Your task to perform on an android device: Open Google Chrome Image 0: 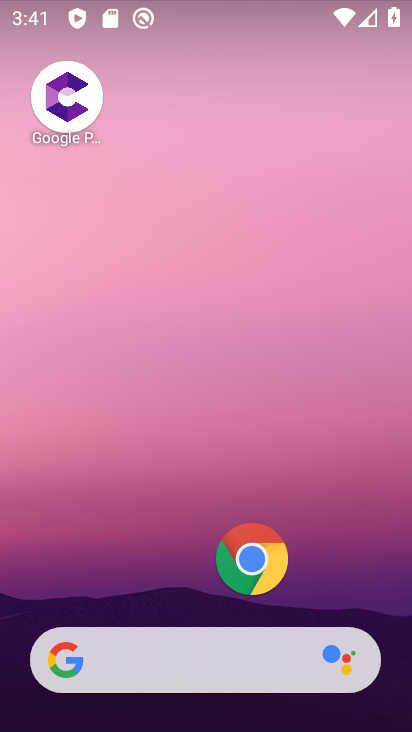
Step 0: click (245, 542)
Your task to perform on an android device: Open Google Chrome Image 1: 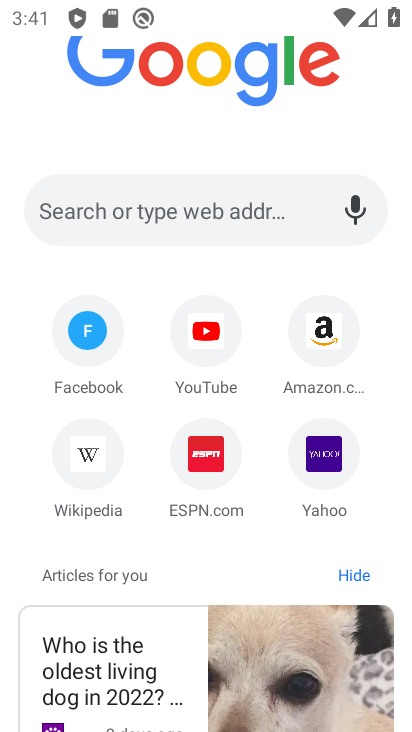
Step 1: task complete